Your task to perform on an android device: Go to ESPN.com Image 0: 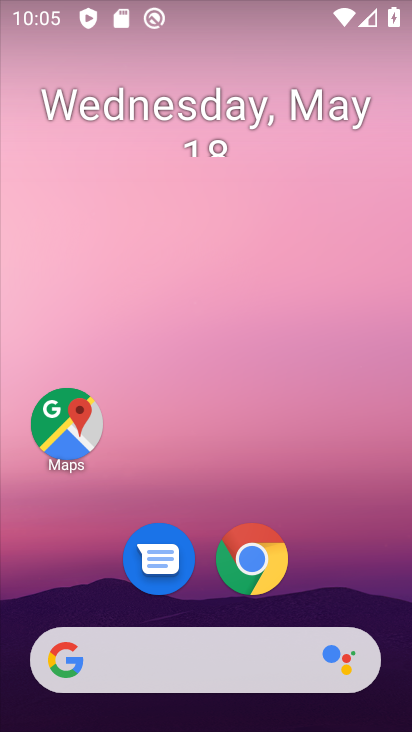
Step 0: click (262, 572)
Your task to perform on an android device: Go to ESPN.com Image 1: 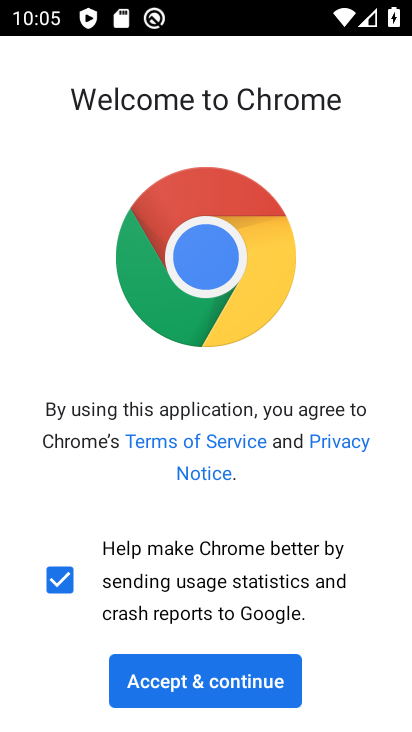
Step 1: click (243, 695)
Your task to perform on an android device: Go to ESPN.com Image 2: 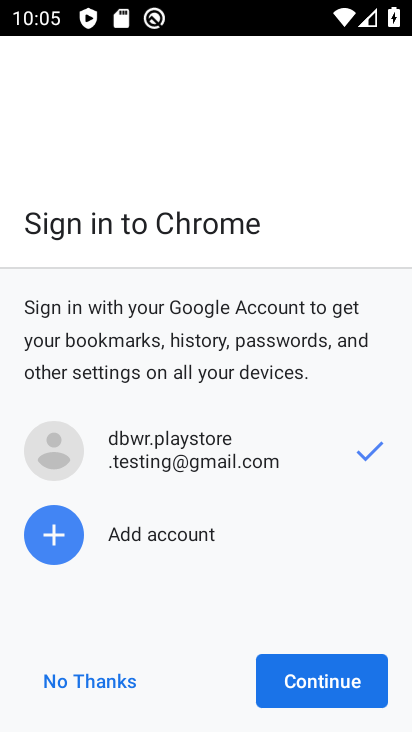
Step 2: click (351, 687)
Your task to perform on an android device: Go to ESPN.com Image 3: 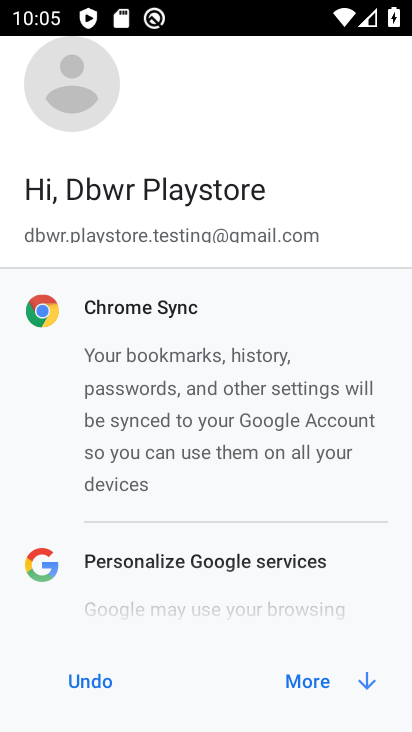
Step 3: click (343, 678)
Your task to perform on an android device: Go to ESPN.com Image 4: 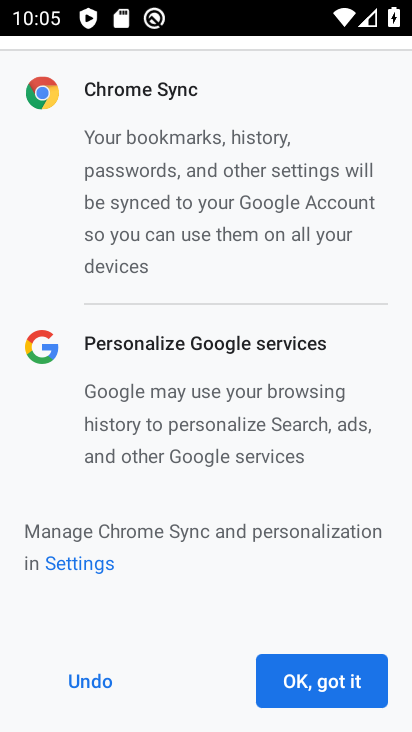
Step 4: click (347, 680)
Your task to perform on an android device: Go to ESPN.com Image 5: 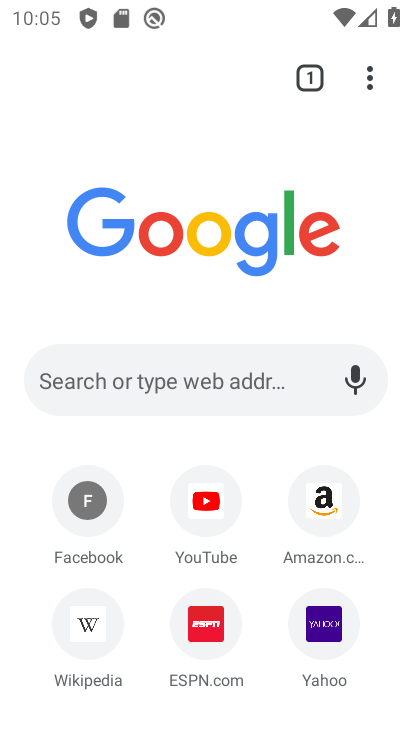
Step 5: click (217, 644)
Your task to perform on an android device: Go to ESPN.com Image 6: 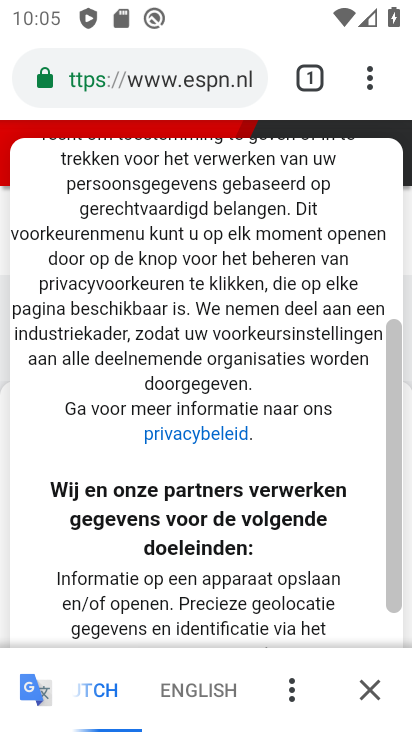
Step 6: task complete